Your task to perform on an android device: delete the emails in spam in the gmail app Image 0: 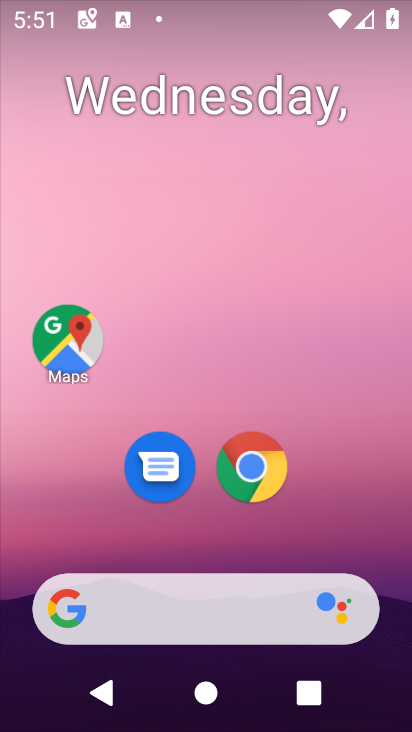
Step 0: drag from (306, 370) to (213, 32)
Your task to perform on an android device: delete the emails in spam in the gmail app Image 1: 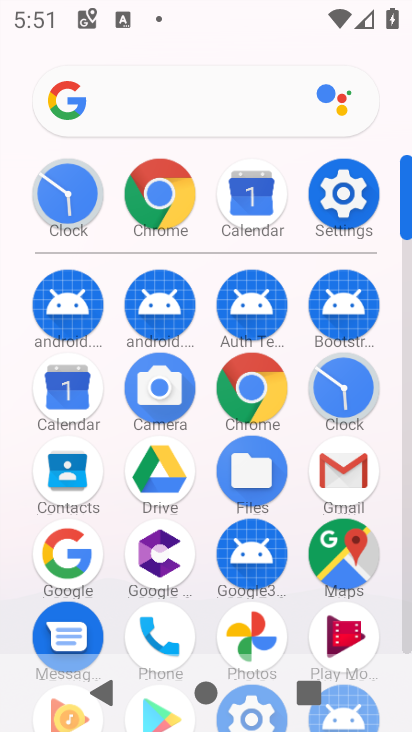
Step 1: click (351, 478)
Your task to perform on an android device: delete the emails in spam in the gmail app Image 2: 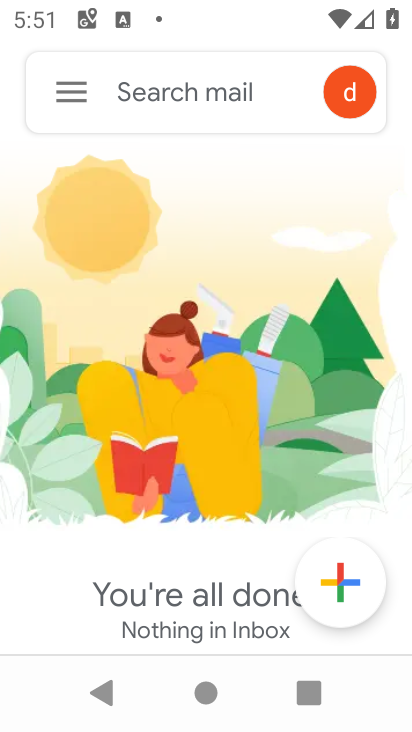
Step 2: click (71, 90)
Your task to perform on an android device: delete the emails in spam in the gmail app Image 3: 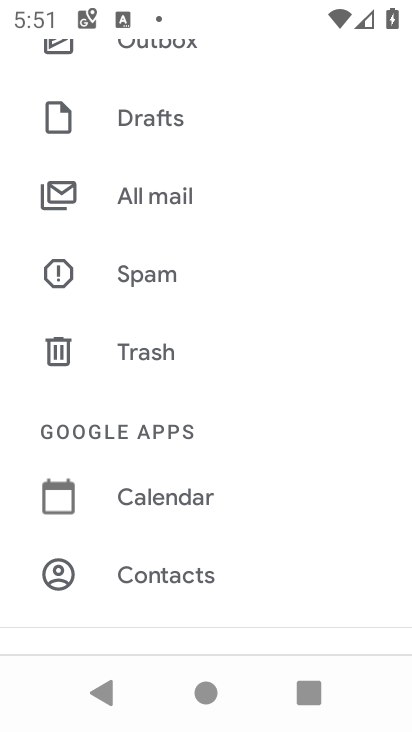
Step 3: click (174, 275)
Your task to perform on an android device: delete the emails in spam in the gmail app Image 4: 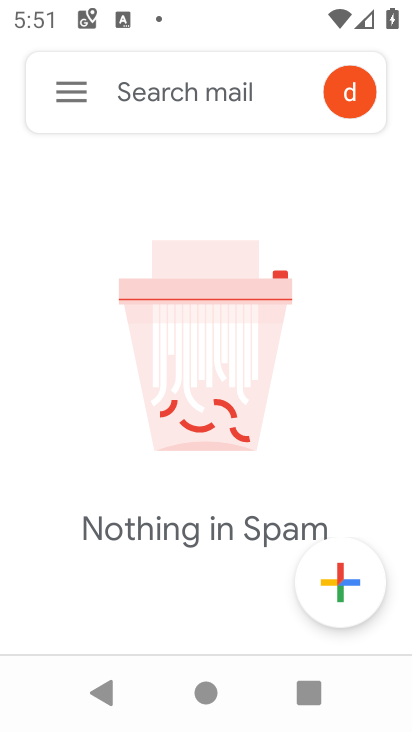
Step 4: task complete